Your task to perform on an android device: check google app version Image 0: 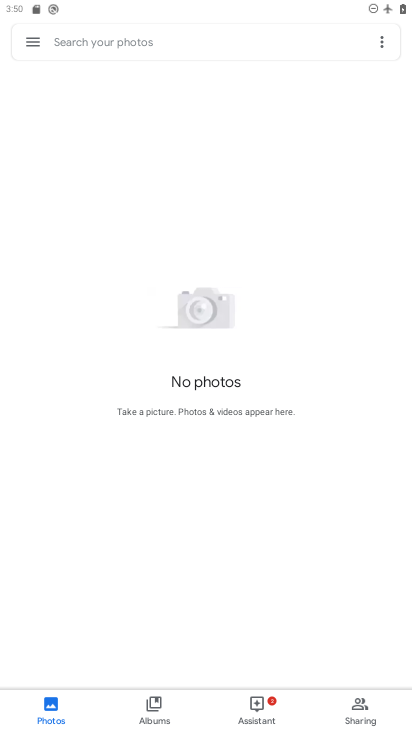
Step 0: press home button
Your task to perform on an android device: check google app version Image 1: 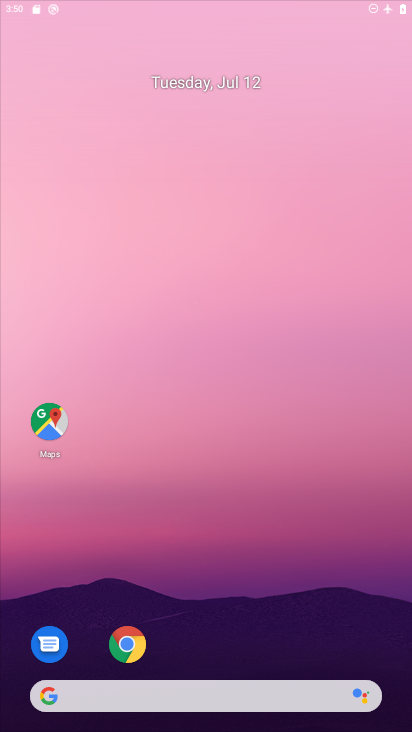
Step 1: press home button
Your task to perform on an android device: check google app version Image 2: 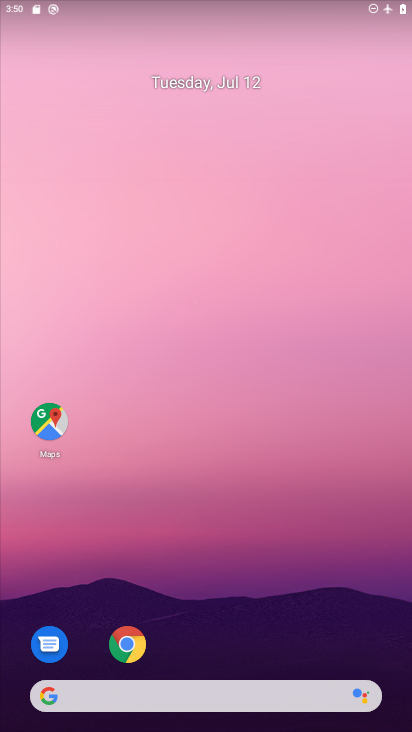
Step 2: drag from (216, 637) to (234, 152)
Your task to perform on an android device: check google app version Image 3: 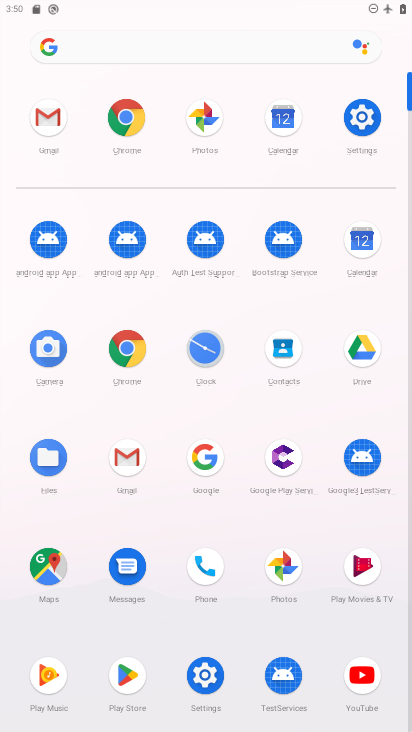
Step 3: click (207, 460)
Your task to perform on an android device: check google app version Image 4: 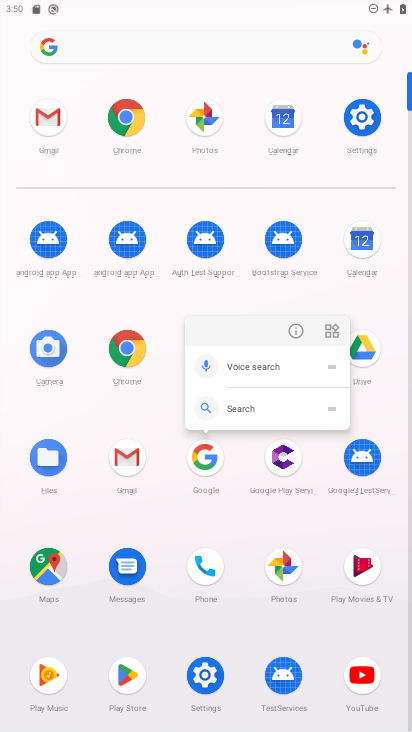
Step 4: click (300, 328)
Your task to perform on an android device: check google app version Image 5: 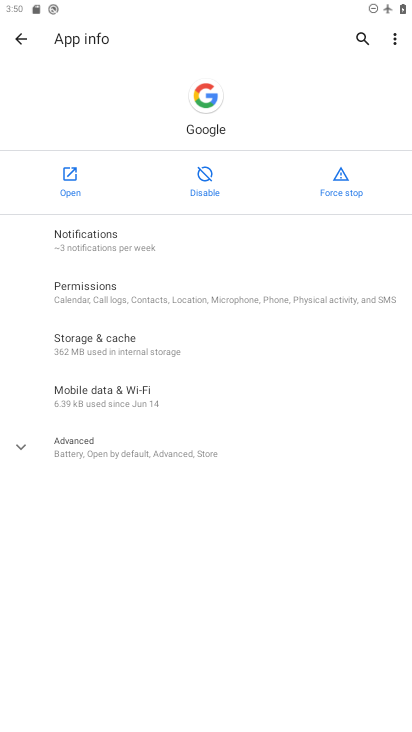
Step 5: click (165, 459)
Your task to perform on an android device: check google app version Image 6: 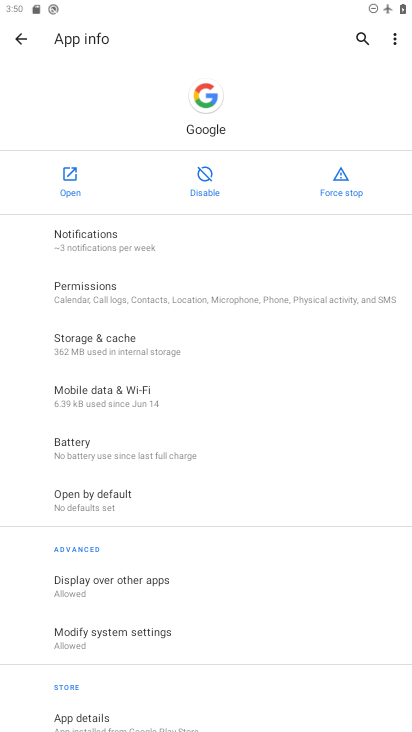
Step 6: task complete